Your task to perform on an android device: turn off wifi Image 0: 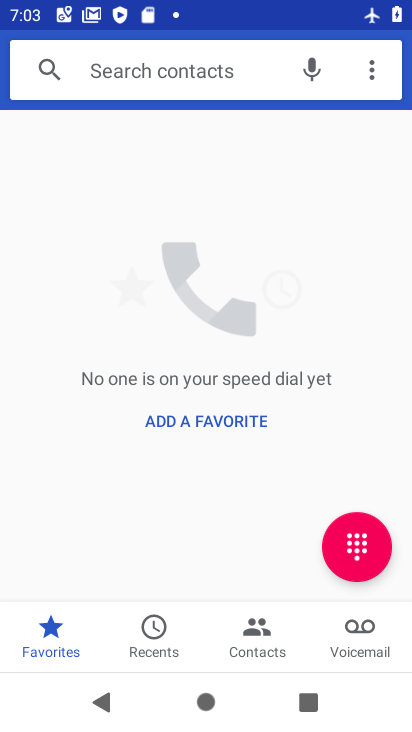
Step 0: press back button
Your task to perform on an android device: turn off wifi Image 1: 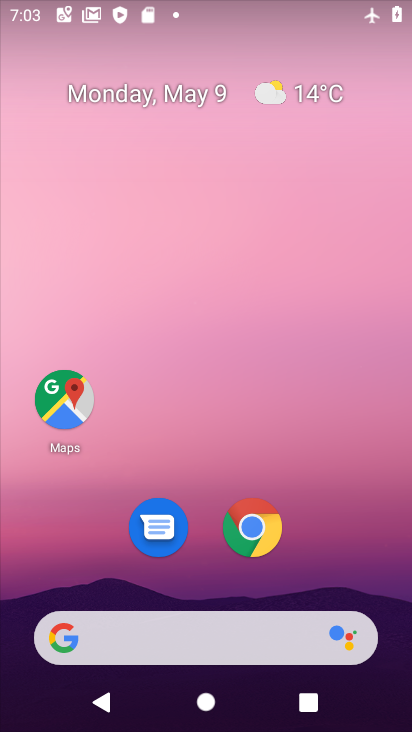
Step 1: drag from (200, 480) to (188, 52)
Your task to perform on an android device: turn off wifi Image 2: 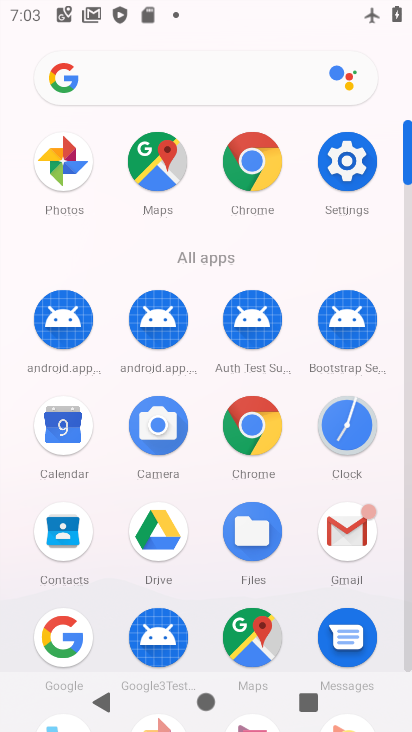
Step 2: click (344, 160)
Your task to perform on an android device: turn off wifi Image 3: 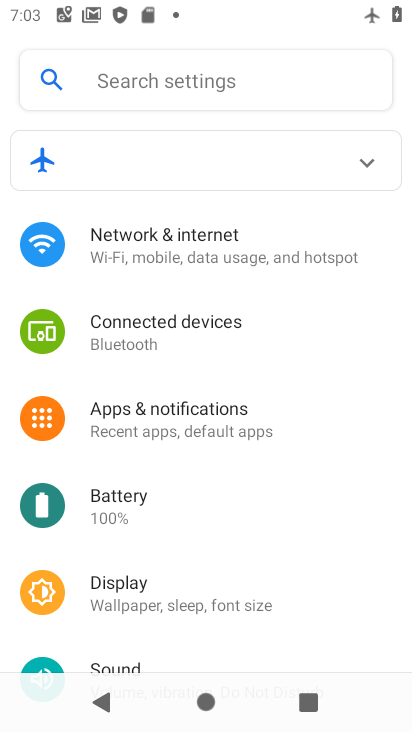
Step 3: click (194, 235)
Your task to perform on an android device: turn off wifi Image 4: 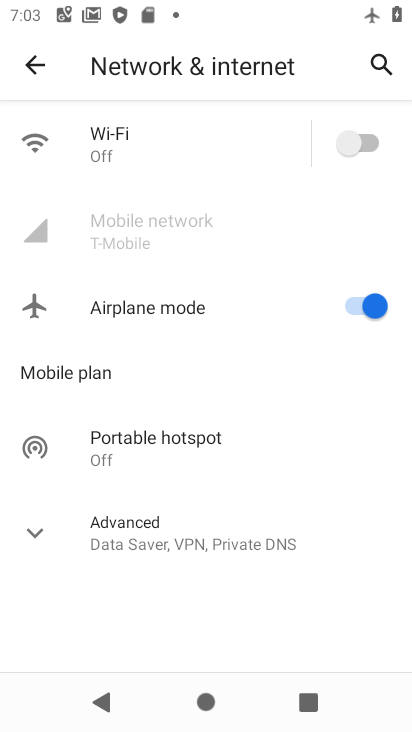
Step 4: task complete